Your task to perform on an android device: open sync settings in chrome Image 0: 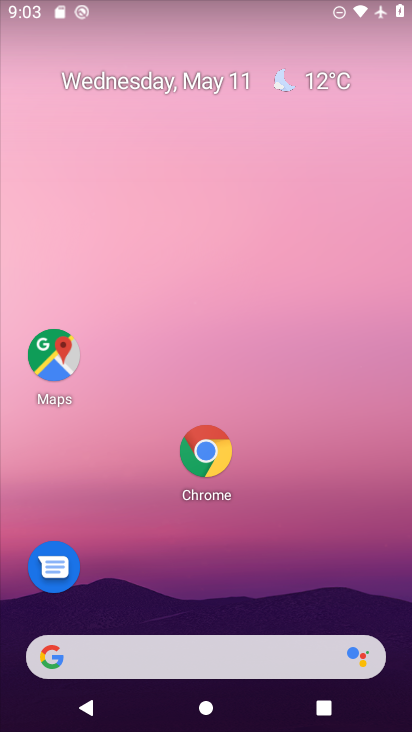
Step 0: click (216, 458)
Your task to perform on an android device: open sync settings in chrome Image 1: 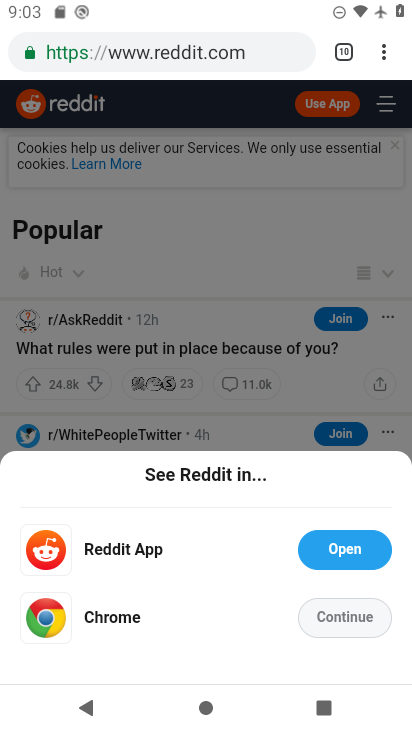
Step 1: drag from (381, 56) to (221, 601)
Your task to perform on an android device: open sync settings in chrome Image 2: 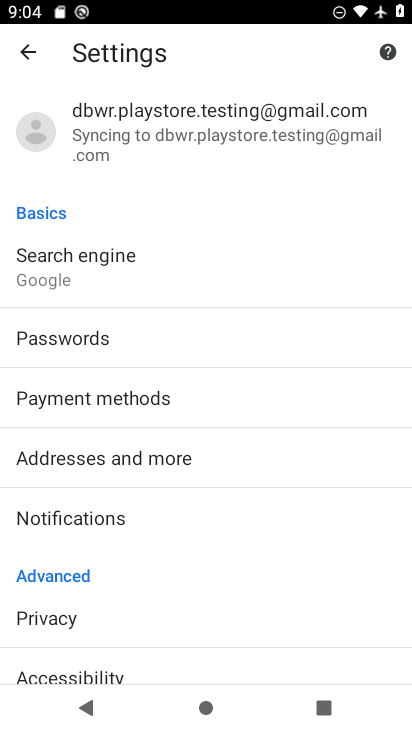
Step 2: click (201, 134)
Your task to perform on an android device: open sync settings in chrome Image 3: 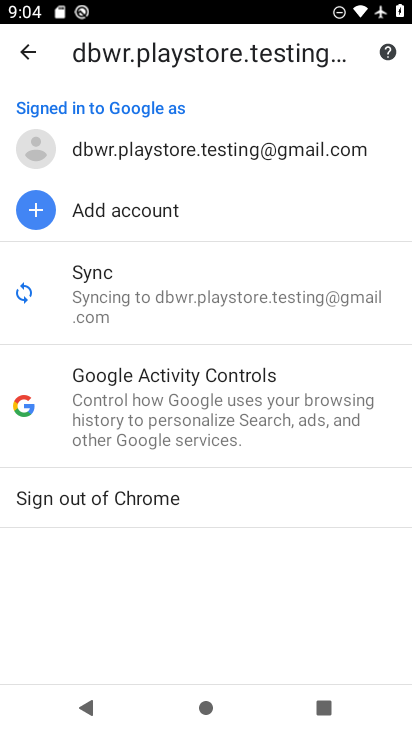
Step 3: click (124, 300)
Your task to perform on an android device: open sync settings in chrome Image 4: 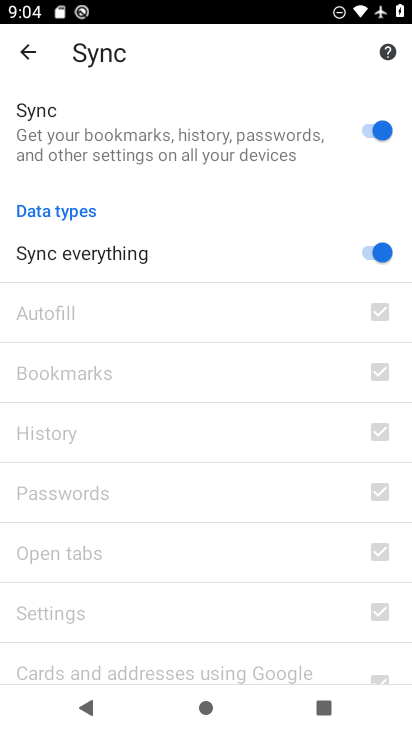
Step 4: task complete